Your task to perform on an android device: toggle translation in the chrome app Image 0: 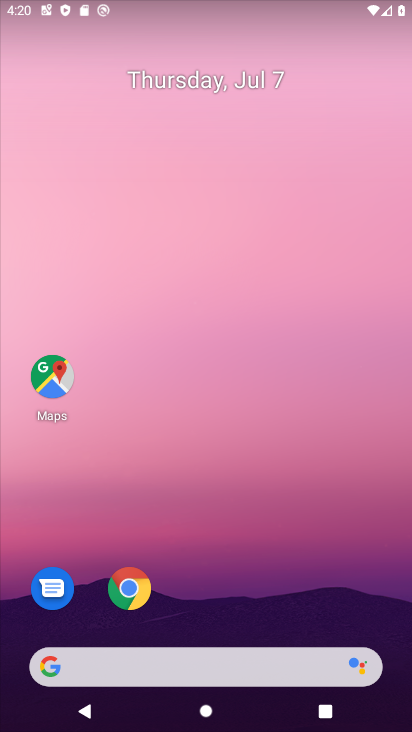
Step 0: drag from (190, 675) to (269, 2)
Your task to perform on an android device: toggle translation in the chrome app Image 1: 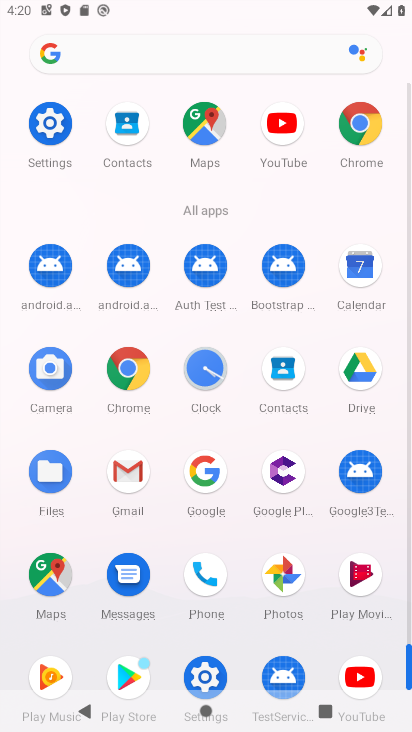
Step 1: click (118, 375)
Your task to perform on an android device: toggle translation in the chrome app Image 2: 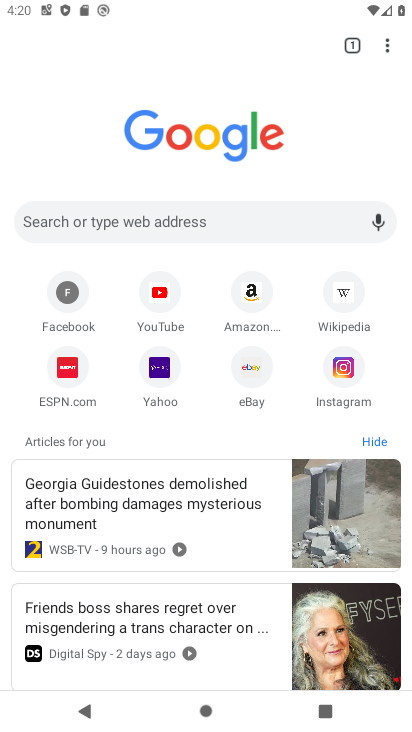
Step 2: click (386, 50)
Your task to perform on an android device: toggle translation in the chrome app Image 3: 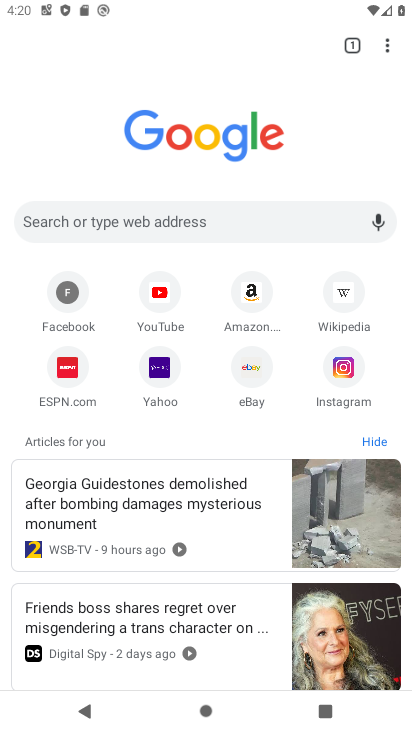
Step 3: drag from (387, 35) to (234, 385)
Your task to perform on an android device: toggle translation in the chrome app Image 4: 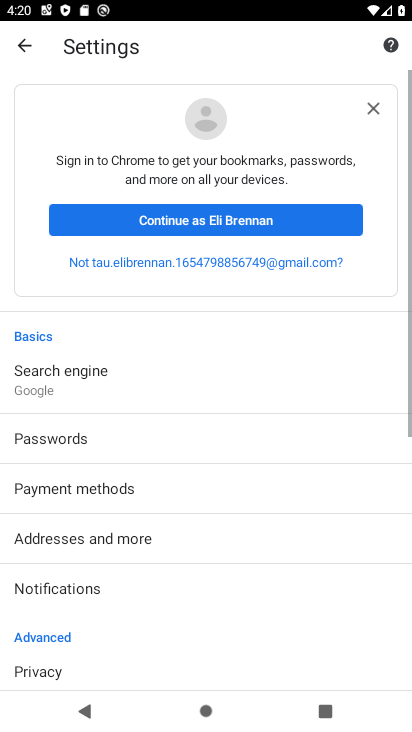
Step 4: drag from (130, 651) to (92, 154)
Your task to perform on an android device: toggle translation in the chrome app Image 5: 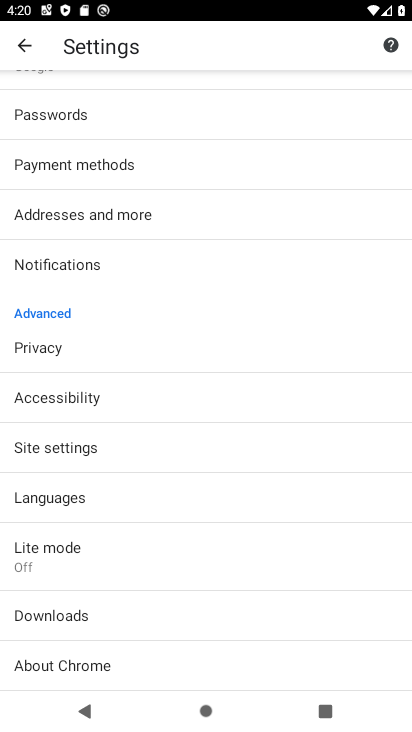
Step 5: click (93, 511)
Your task to perform on an android device: toggle translation in the chrome app Image 6: 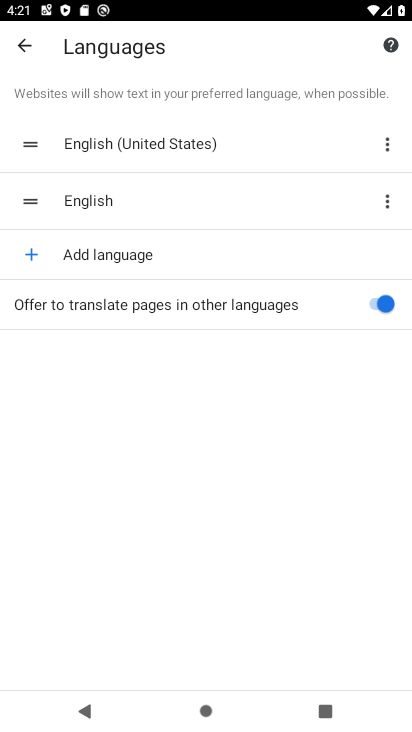
Step 6: click (382, 304)
Your task to perform on an android device: toggle translation in the chrome app Image 7: 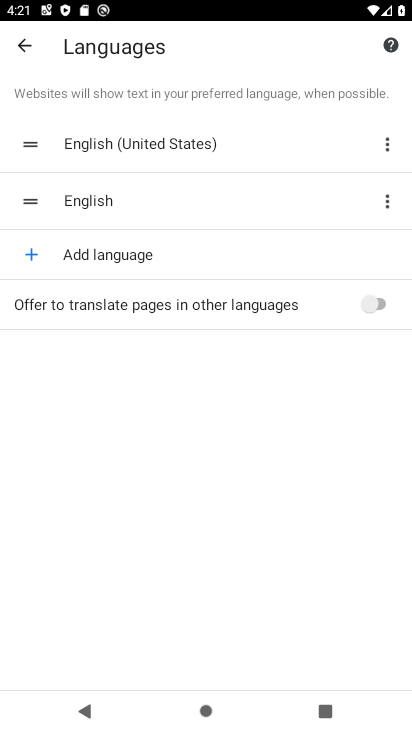
Step 7: task complete